Your task to perform on an android device: toggle pop-ups in chrome Image 0: 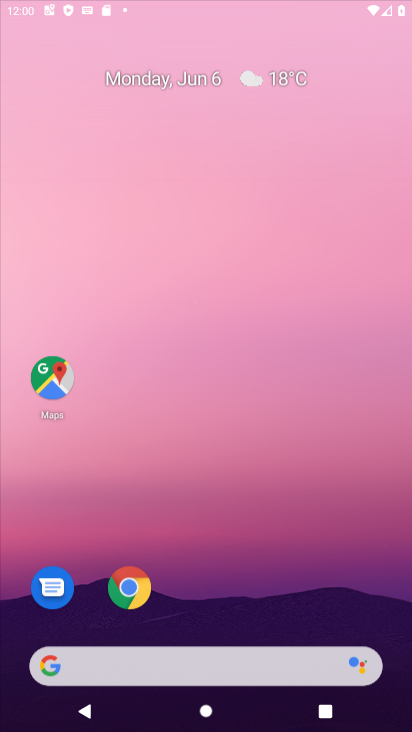
Step 0: drag from (202, 258) to (194, 46)
Your task to perform on an android device: toggle pop-ups in chrome Image 1: 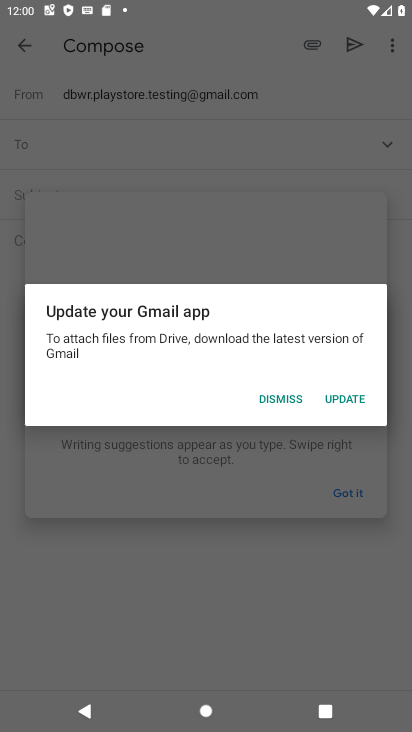
Step 1: press home button
Your task to perform on an android device: toggle pop-ups in chrome Image 2: 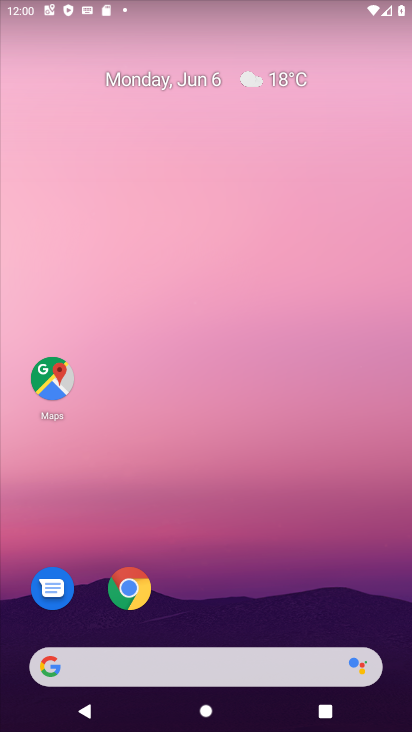
Step 2: drag from (240, 621) to (221, 189)
Your task to perform on an android device: toggle pop-ups in chrome Image 3: 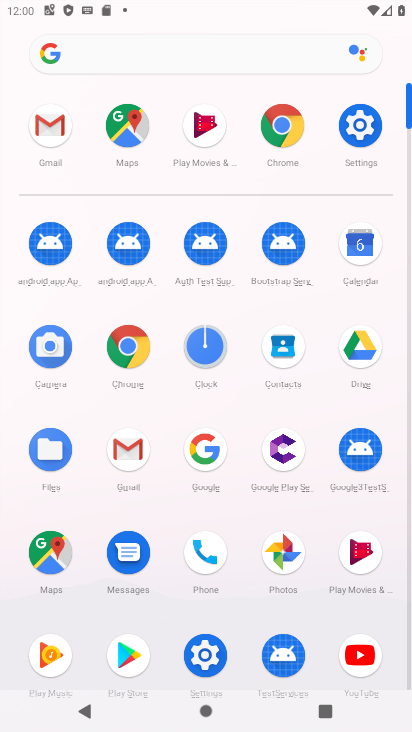
Step 3: click (293, 142)
Your task to perform on an android device: toggle pop-ups in chrome Image 4: 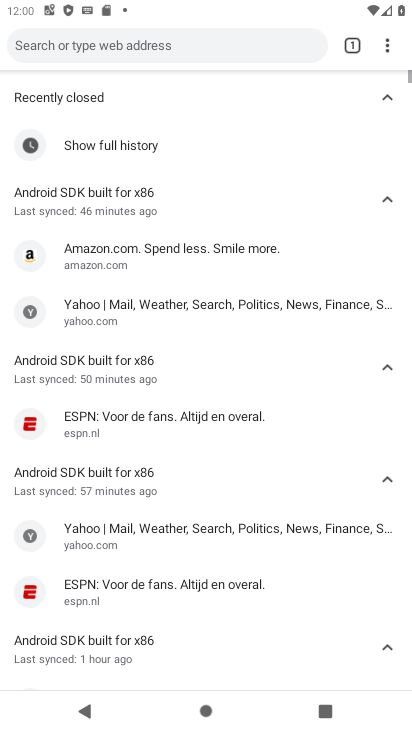
Step 4: click (390, 35)
Your task to perform on an android device: toggle pop-ups in chrome Image 5: 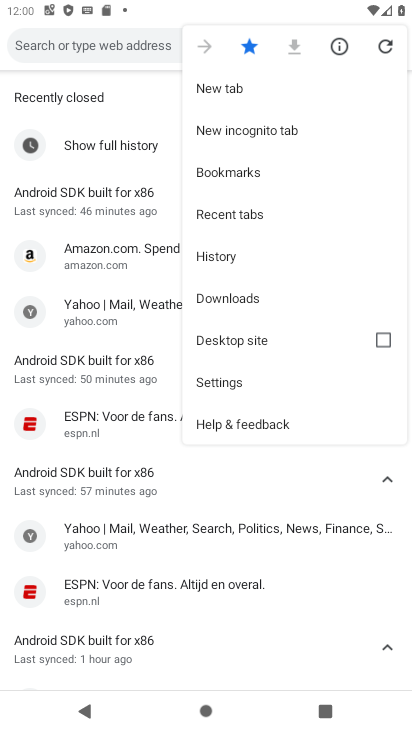
Step 5: click (265, 375)
Your task to perform on an android device: toggle pop-ups in chrome Image 6: 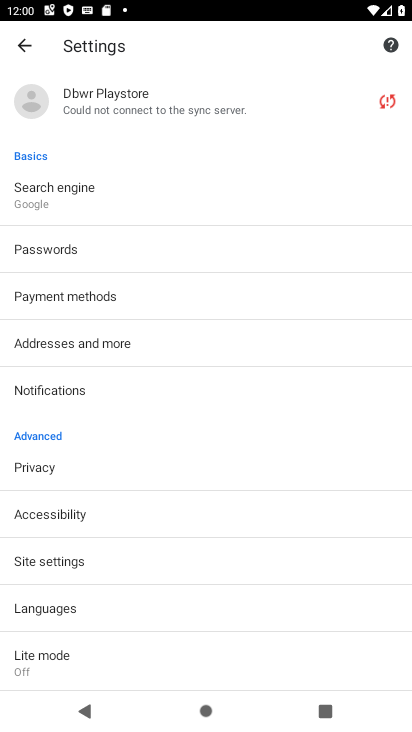
Step 6: click (146, 568)
Your task to perform on an android device: toggle pop-ups in chrome Image 7: 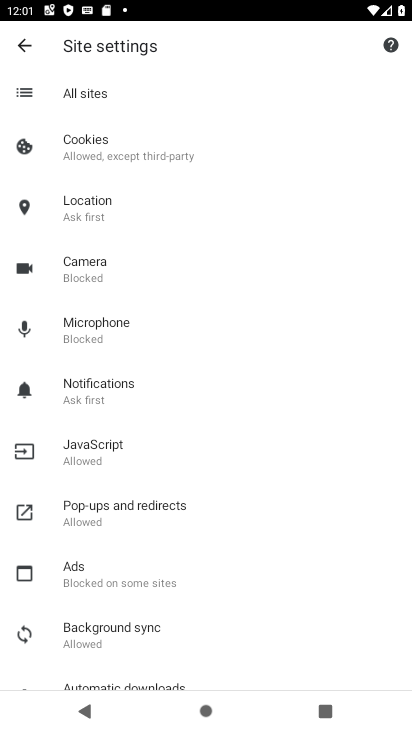
Step 7: click (184, 499)
Your task to perform on an android device: toggle pop-ups in chrome Image 8: 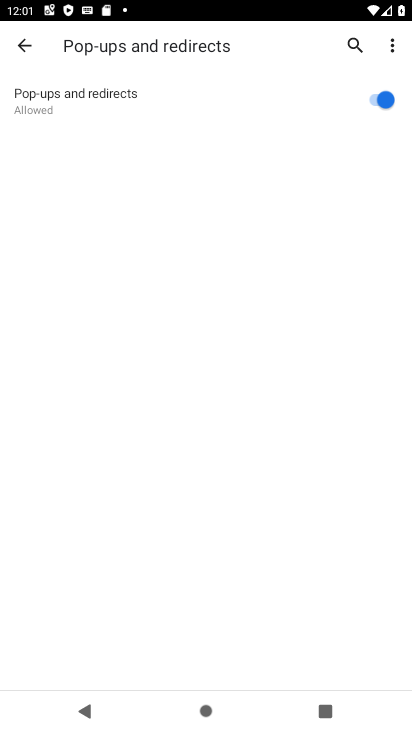
Step 8: click (383, 101)
Your task to perform on an android device: toggle pop-ups in chrome Image 9: 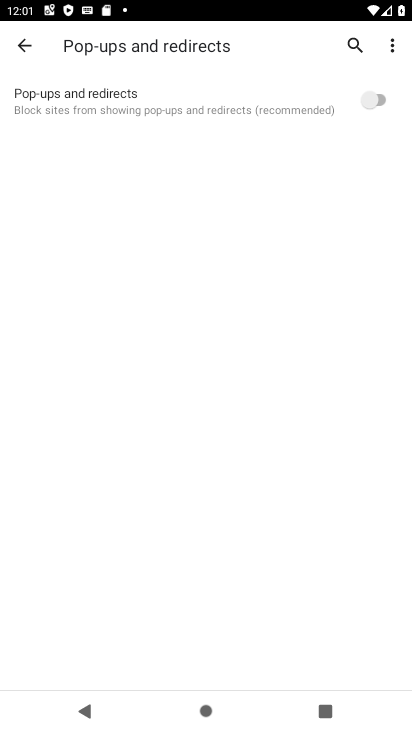
Step 9: task complete